Your task to perform on an android device: Open privacy settings Image 0: 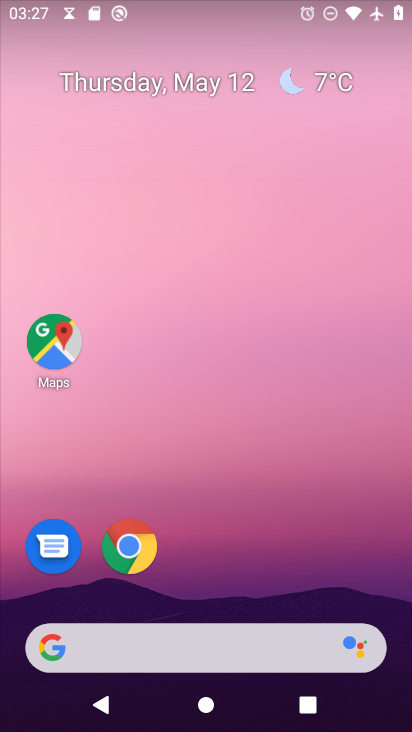
Step 0: press home button
Your task to perform on an android device: Open privacy settings Image 1: 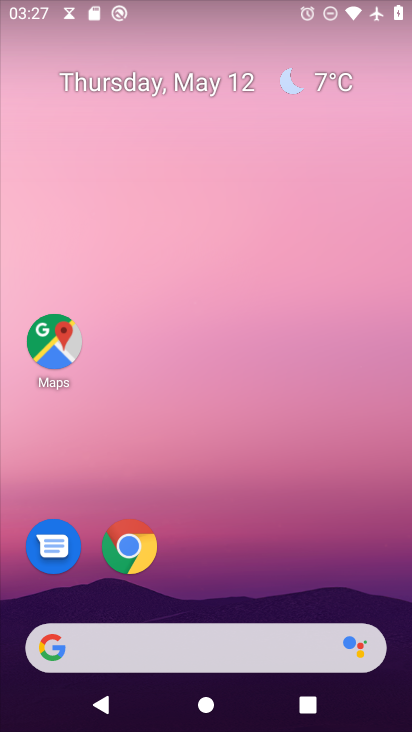
Step 1: drag from (178, 643) to (263, 221)
Your task to perform on an android device: Open privacy settings Image 2: 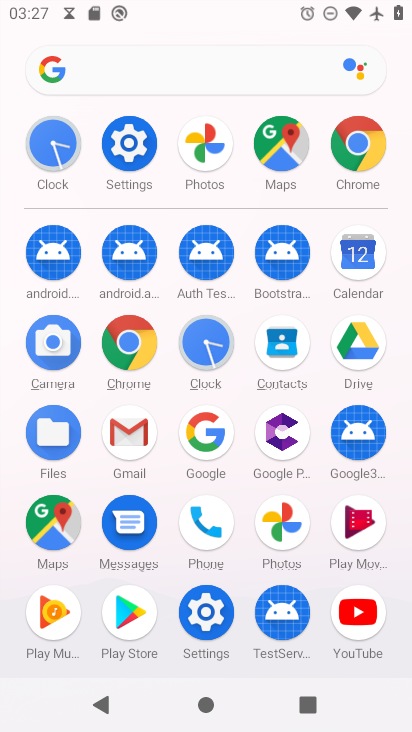
Step 2: click (118, 158)
Your task to perform on an android device: Open privacy settings Image 3: 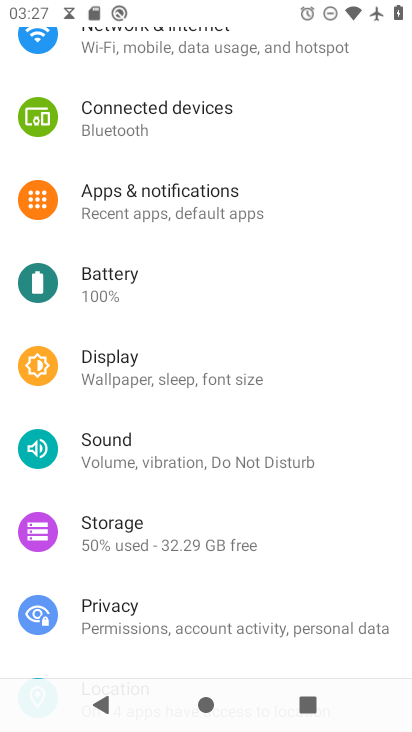
Step 3: click (138, 620)
Your task to perform on an android device: Open privacy settings Image 4: 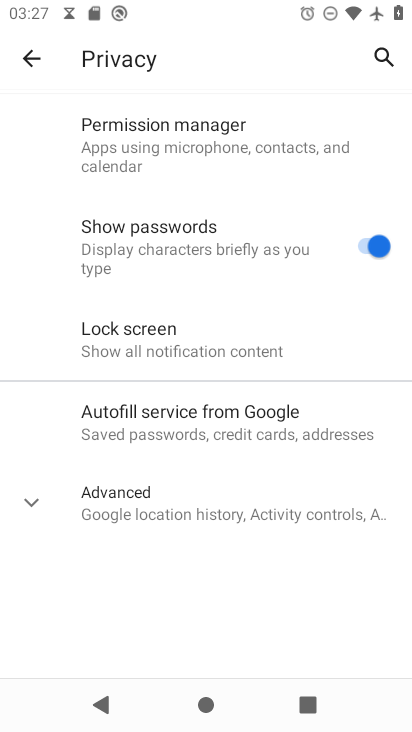
Step 4: task complete